Your task to perform on an android device: Open ESPN.com Image 0: 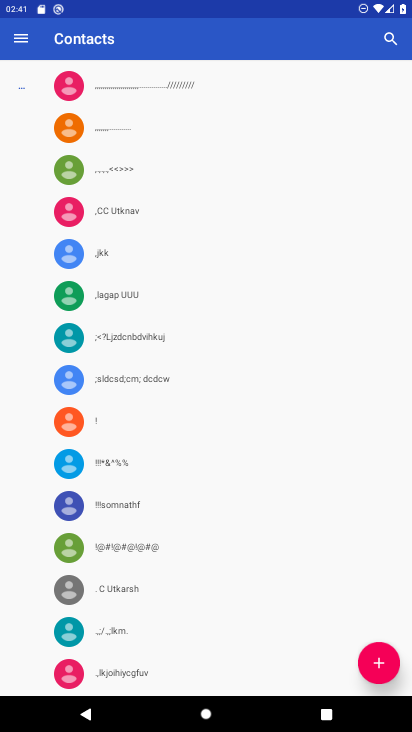
Step 0: press home button
Your task to perform on an android device: Open ESPN.com Image 1: 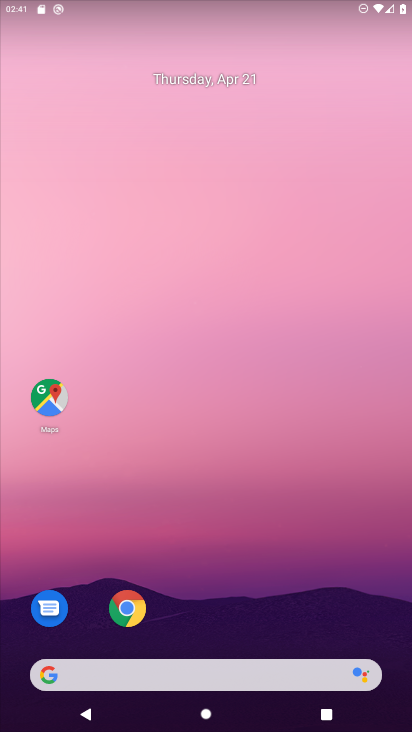
Step 1: drag from (297, 325) to (304, 157)
Your task to perform on an android device: Open ESPN.com Image 2: 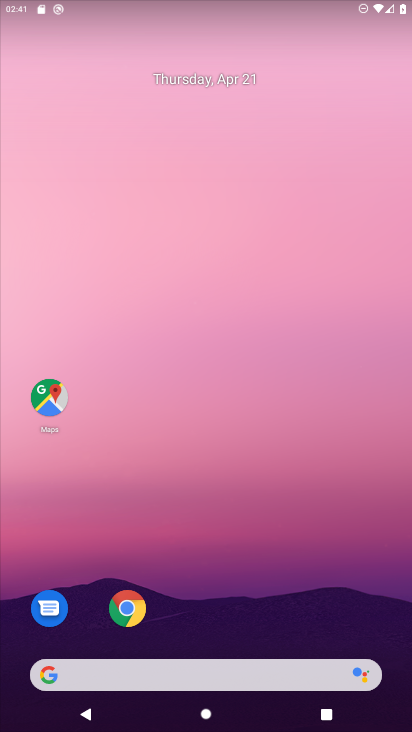
Step 2: drag from (243, 452) to (315, 31)
Your task to perform on an android device: Open ESPN.com Image 3: 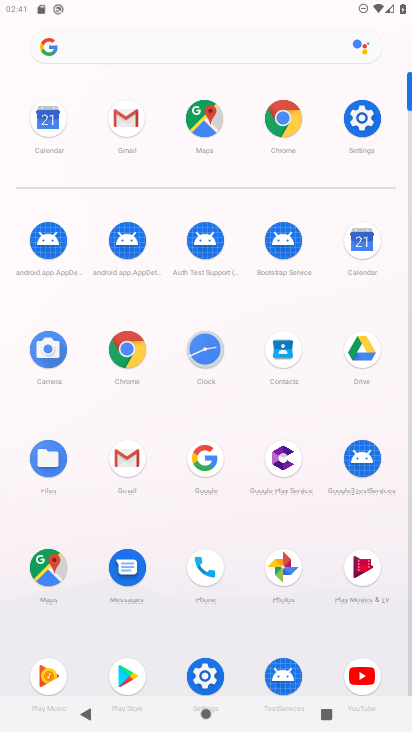
Step 3: click (274, 106)
Your task to perform on an android device: Open ESPN.com Image 4: 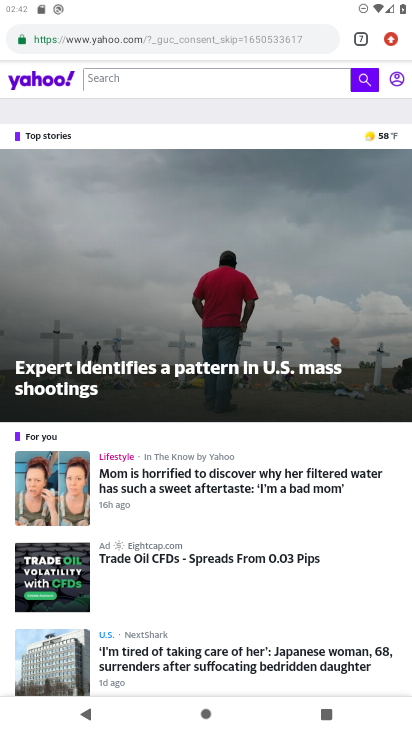
Step 4: click (395, 41)
Your task to perform on an android device: Open ESPN.com Image 5: 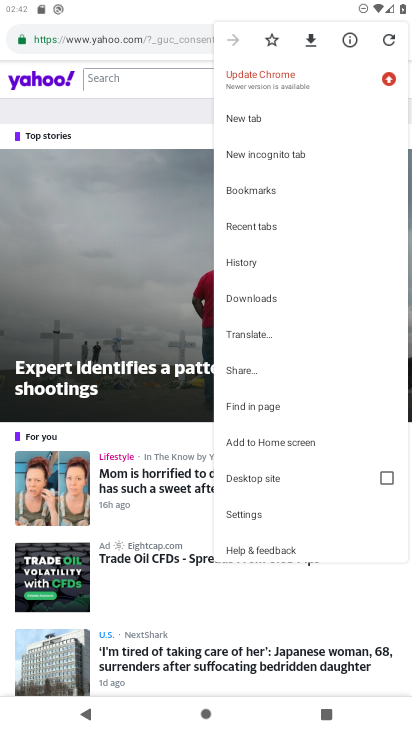
Step 5: click (252, 117)
Your task to perform on an android device: Open ESPN.com Image 6: 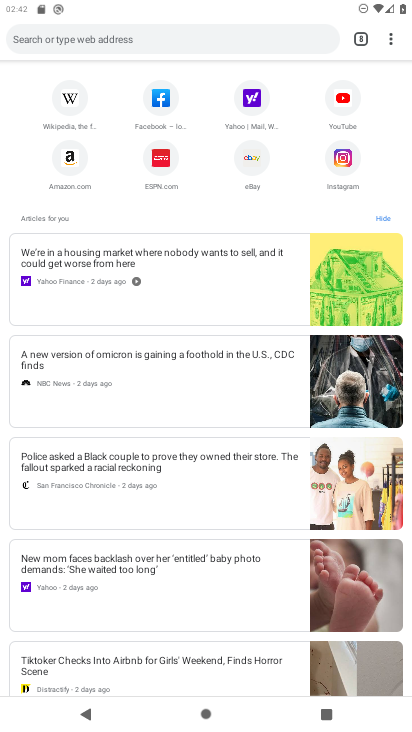
Step 6: click (155, 164)
Your task to perform on an android device: Open ESPN.com Image 7: 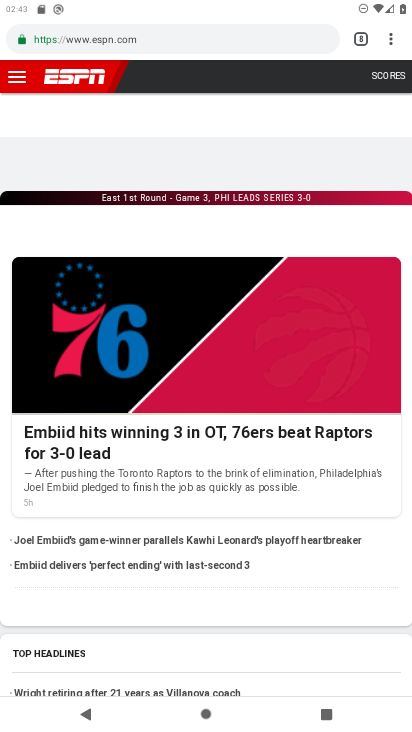
Step 7: task complete